Your task to perform on an android device: Open settings on Google Maps Image 0: 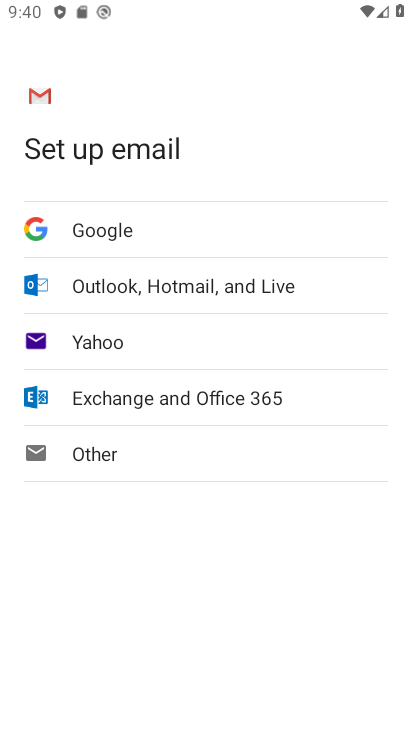
Step 0: press home button
Your task to perform on an android device: Open settings on Google Maps Image 1: 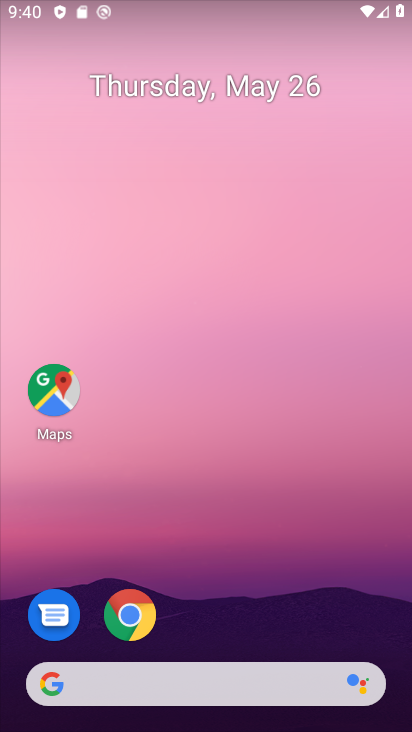
Step 1: drag from (238, 710) to (258, 136)
Your task to perform on an android device: Open settings on Google Maps Image 2: 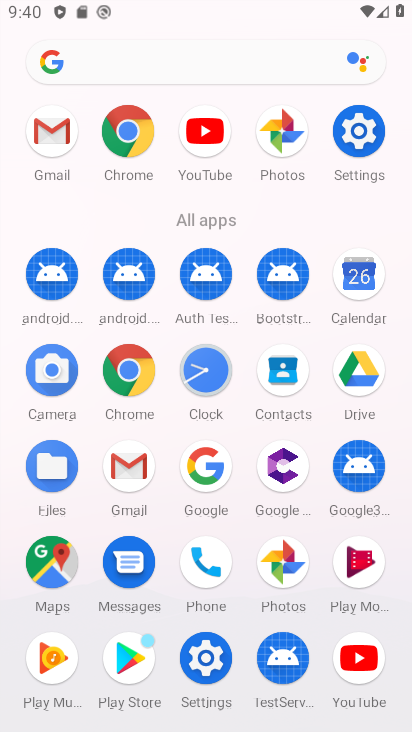
Step 2: click (48, 566)
Your task to perform on an android device: Open settings on Google Maps Image 3: 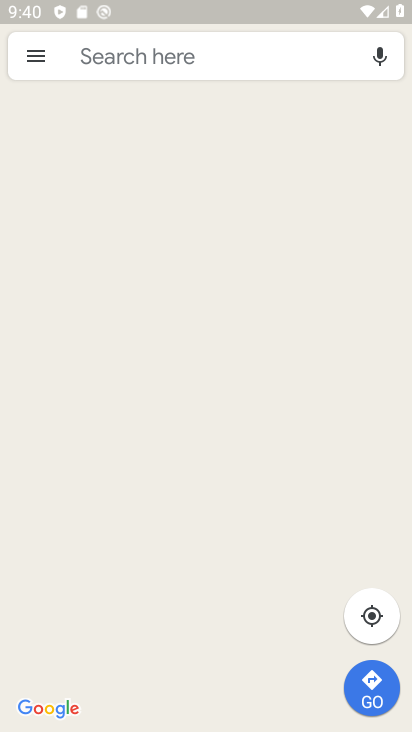
Step 3: click (32, 69)
Your task to perform on an android device: Open settings on Google Maps Image 4: 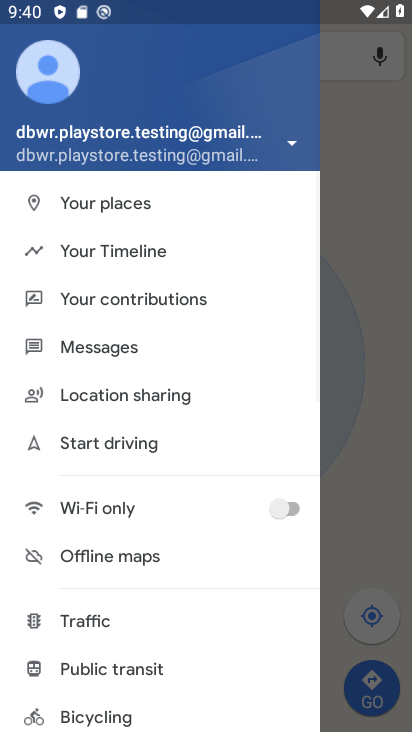
Step 4: drag from (70, 631) to (142, 313)
Your task to perform on an android device: Open settings on Google Maps Image 5: 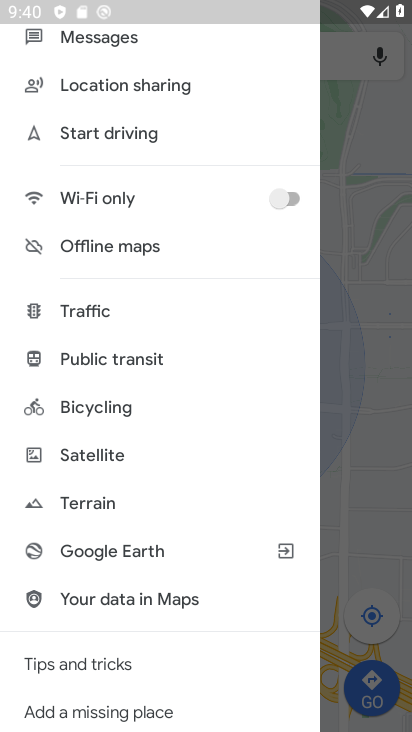
Step 5: drag from (134, 609) to (172, 366)
Your task to perform on an android device: Open settings on Google Maps Image 6: 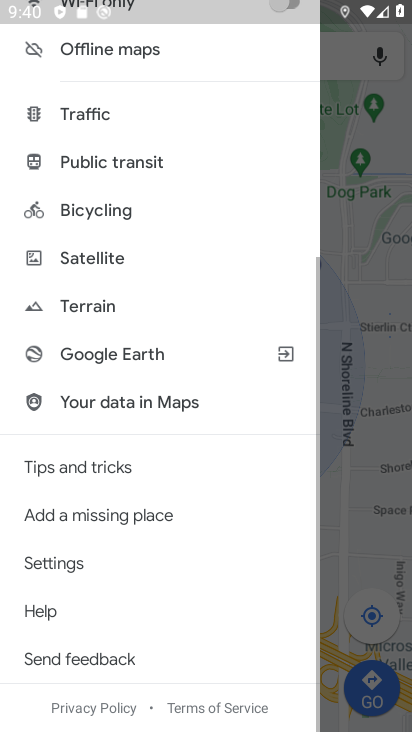
Step 6: click (112, 654)
Your task to perform on an android device: Open settings on Google Maps Image 7: 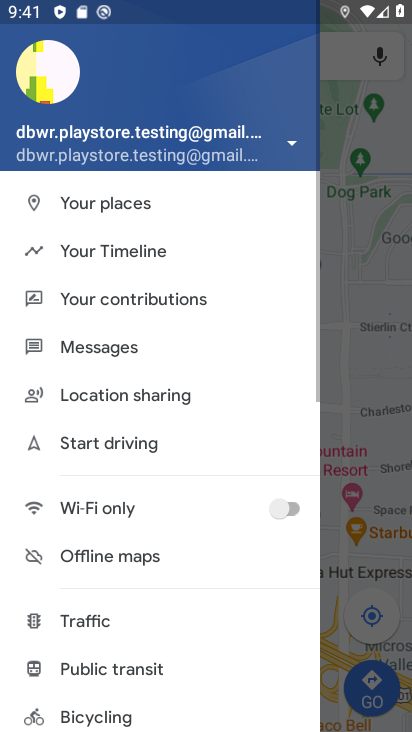
Step 7: drag from (135, 626) to (163, 316)
Your task to perform on an android device: Open settings on Google Maps Image 8: 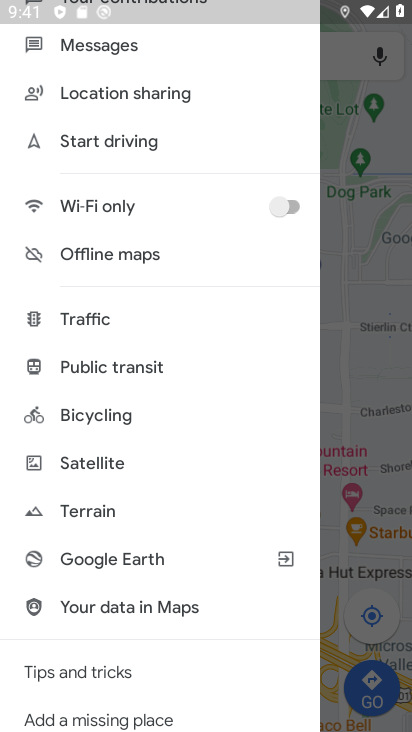
Step 8: drag from (183, 405) to (153, 152)
Your task to perform on an android device: Open settings on Google Maps Image 9: 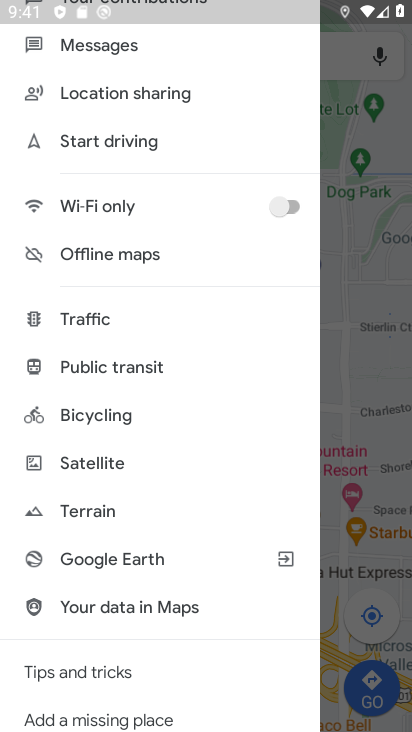
Step 9: drag from (81, 550) to (110, 160)
Your task to perform on an android device: Open settings on Google Maps Image 10: 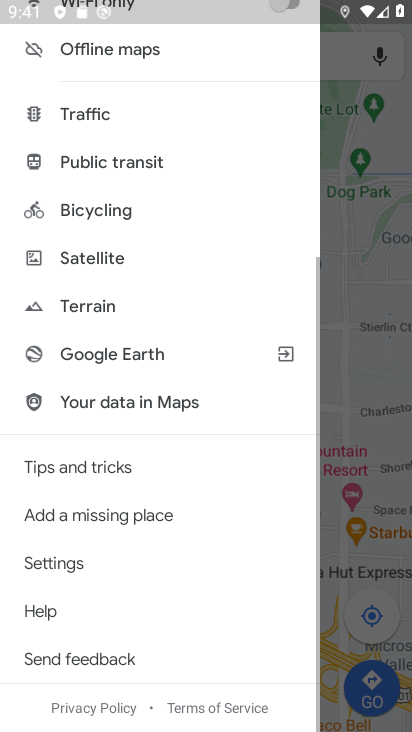
Step 10: click (72, 561)
Your task to perform on an android device: Open settings on Google Maps Image 11: 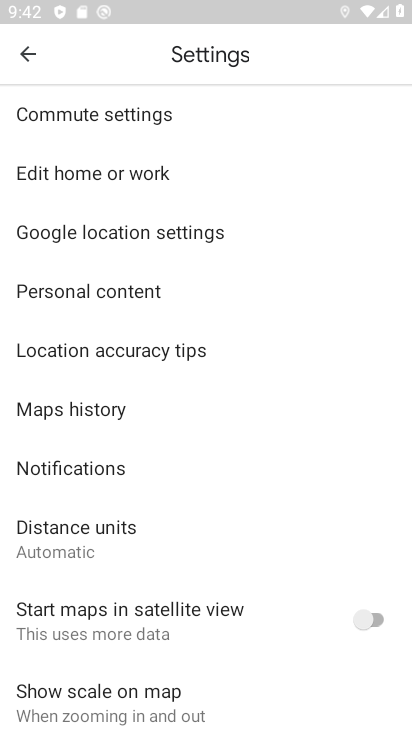
Step 11: task complete